Your task to perform on an android device: open wifi settings Image 0: 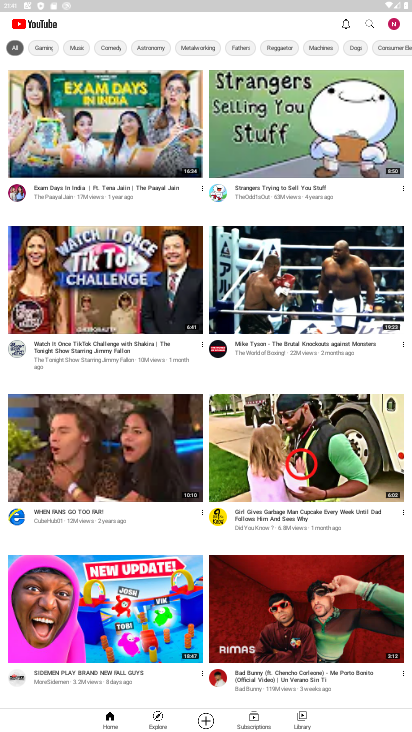
Step 0: press home button
Your task to perform on an android device: open wifi settings Image 1: 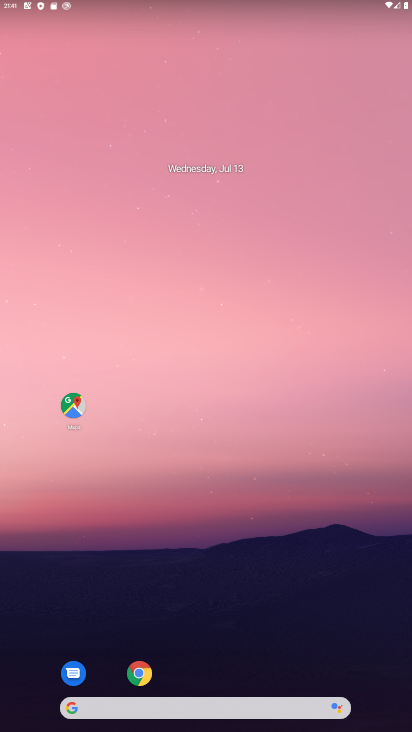
Step 1: drag from (220, 670) to (173, 170)
Your task to perform on an android device: open wifi settings Image 2: 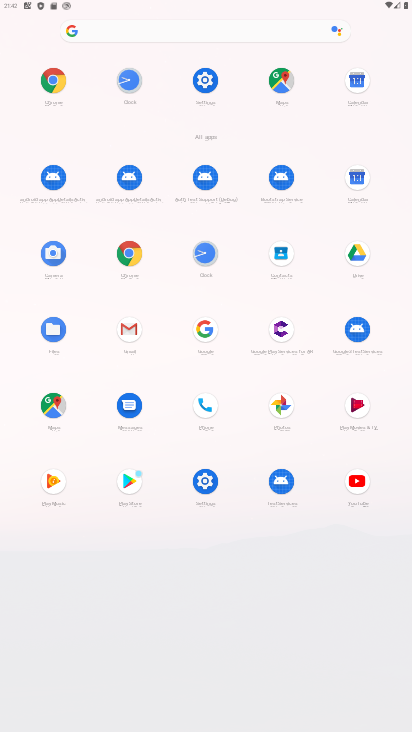
Step 2: click (202, 91)
Your task to perform on an android device: open wifi settings Image 3: 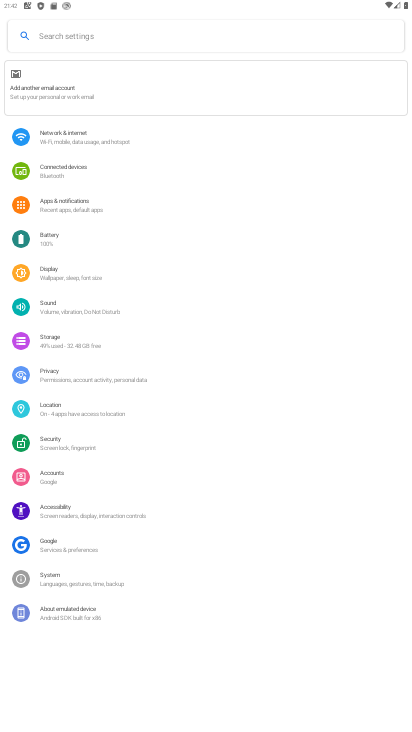
Step 3: click (64, 125)
Your task to perform on an android device: open wifi settings Image 4: 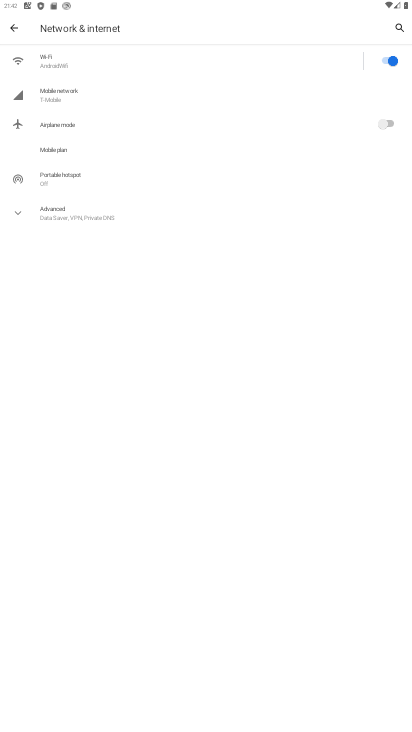
Step 4: click (112, 55)
Your task to perform on an android device: open wifi settings Image 5: 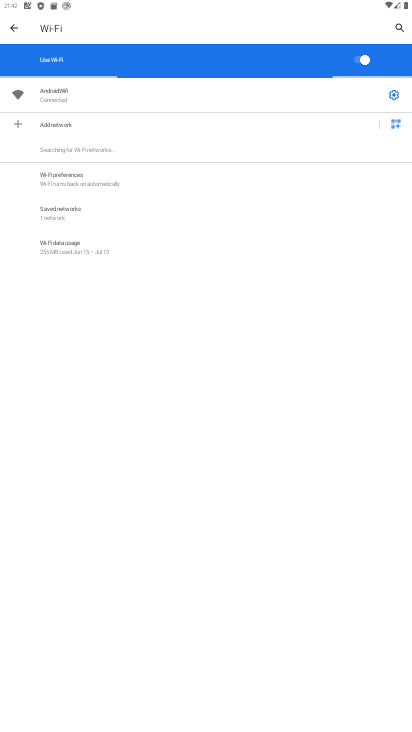
Step 5: task complete